Your task to perform on an android device: empty trash in google photos Image 0: 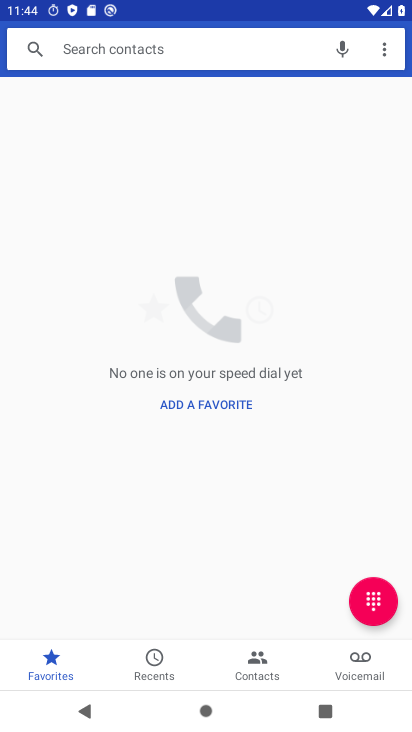
Step 0: press home button
Your task to perform on an android device: empty trash in google photos Image 1: 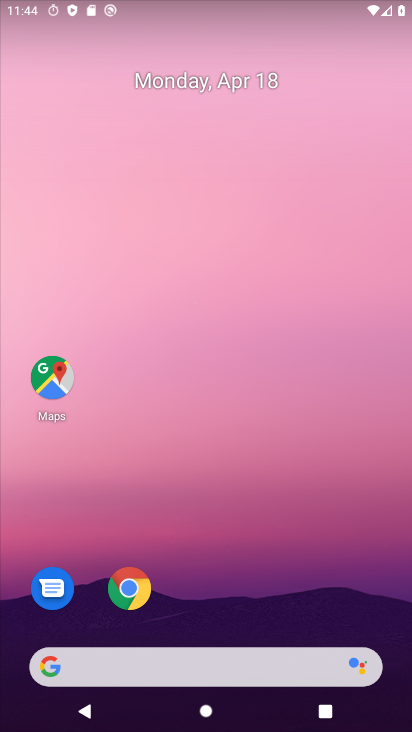
Step 1: drag from (228, 472) to (251, 35)
Your task to perform on an android device: empty trash in google photos Image 2: 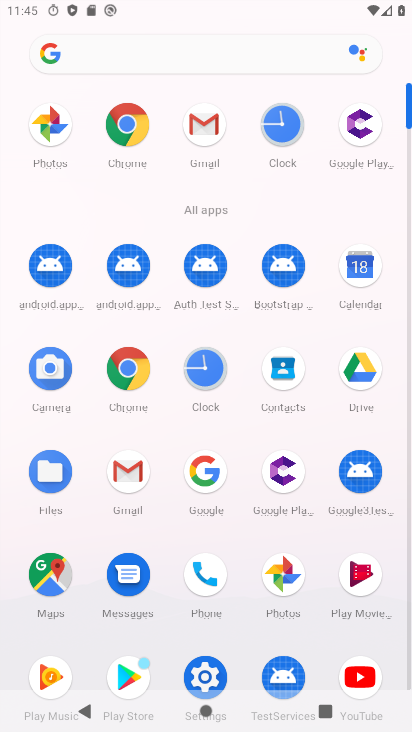
Step 2: click (276, 587)
Your task to perform on an android device: empty trash in google photos Image 3: 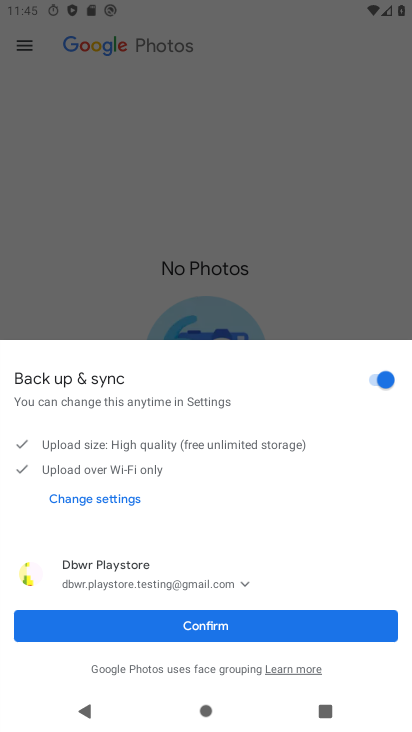
Step 3: click (203, 626)
Your task to perform on an android device: empty trash in google photos Image 4: 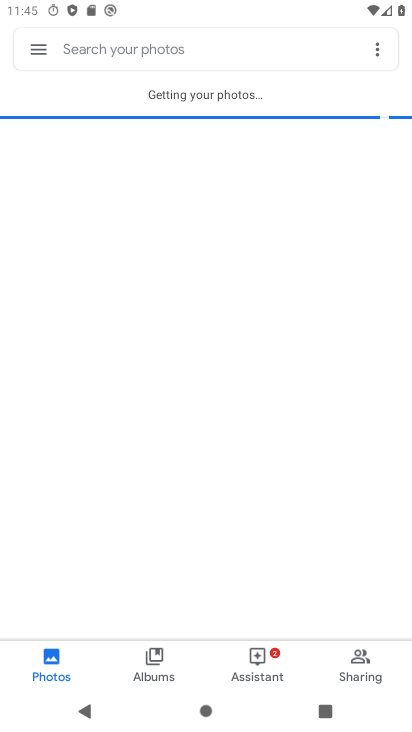
Step 4: click (34, 44)
Your task to perform on an android device: empty trash in google photos Image 5: 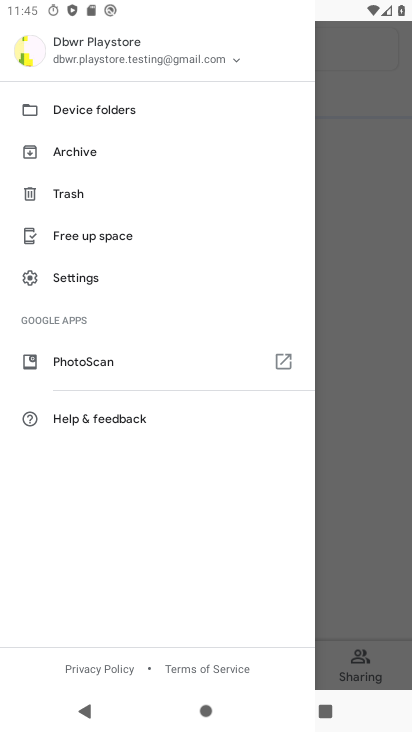
Step 5: click (75, 192)
Your task to perform on an android device: empty trash in google photos Image 6: 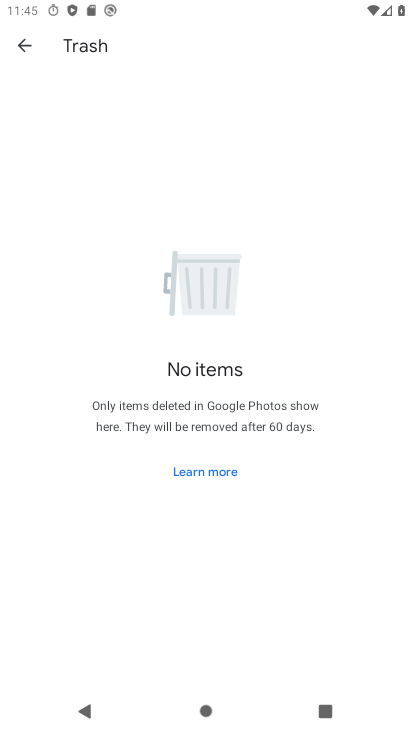
Step 6: task complete